Your task to perform on an android device: open wifi settings Image 0: 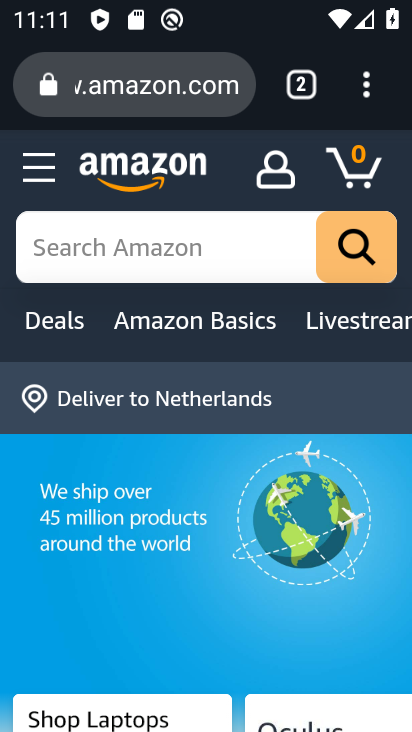
Step 0: press home button
Your task to perform on an android device: open wifi settings Image 1: 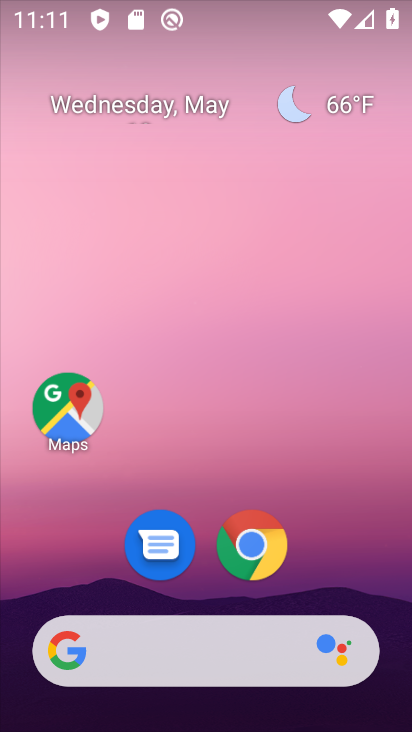
Step 1: drag from (133, 717) to (204, 260)
Your task to perform on an android device: open wifi settings Image 2: 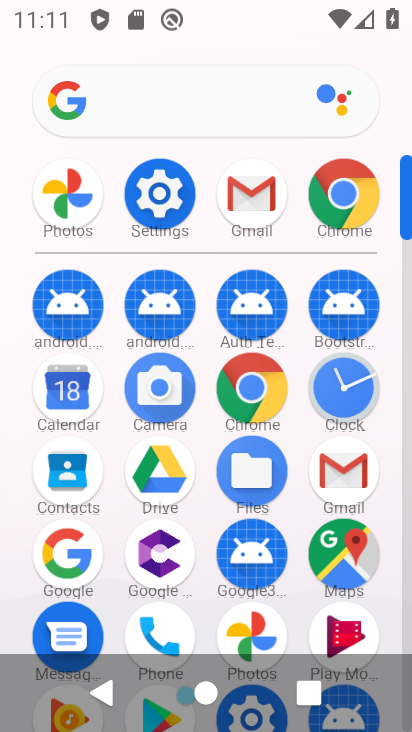
Step 2: click (155, 199)
Your task to perform on an android device: open wifi settings Image 3: 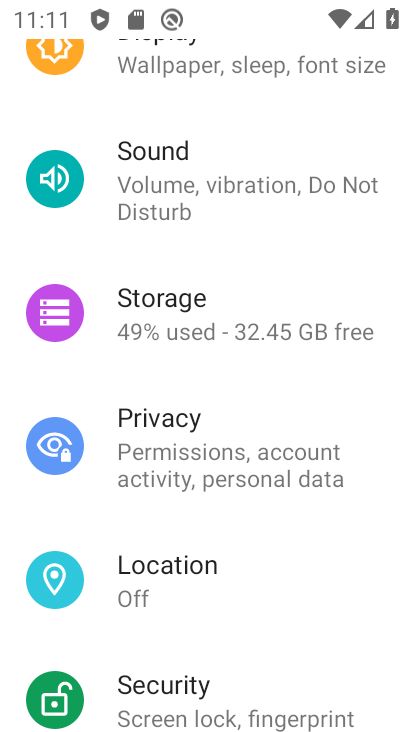
Step 3: drag from (190, 144) to (221, 683)
Your task to perform on an android device: open wifi settings Image 4: 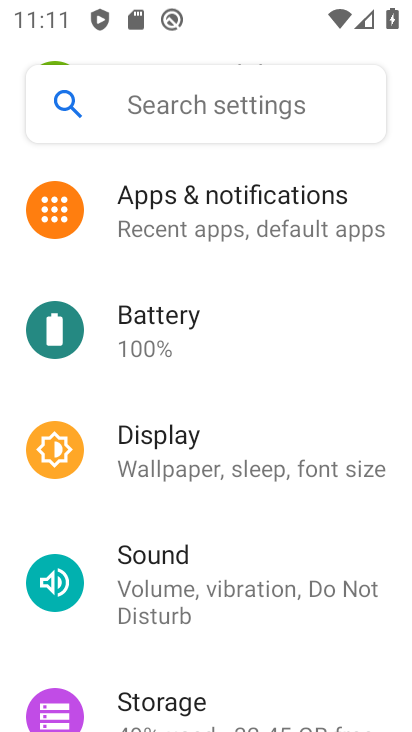
Step 4: drag from (205, 229) to (179, 564)
Your task to perform on an android device: open wifi settings Image 5: 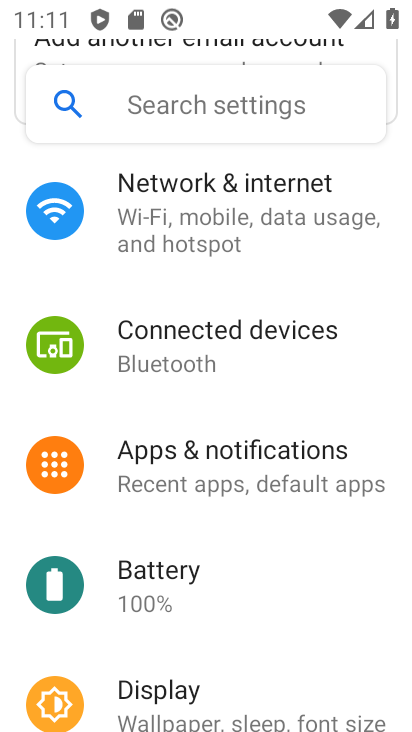
Step 5: click (179, 202)
Your task to perform on an android device: open wifi settings Image 6: 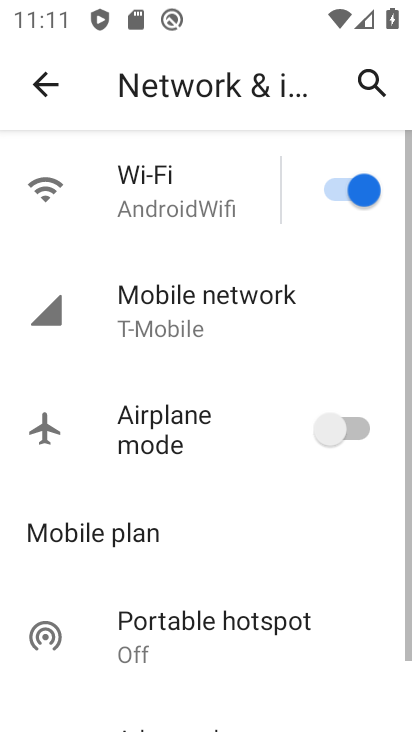
Step 6: click (155, 181)
Your task to perform on an android device: open wifi settings Image 7: 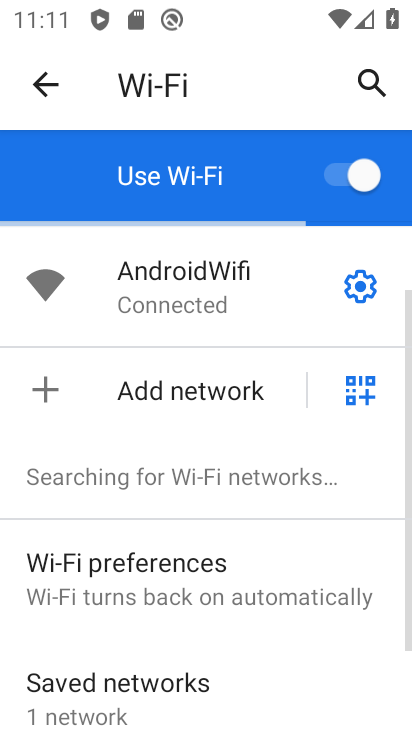
Step 7: click (368, 294)
Your task to perform on an android device: open wifi settings Image 8: 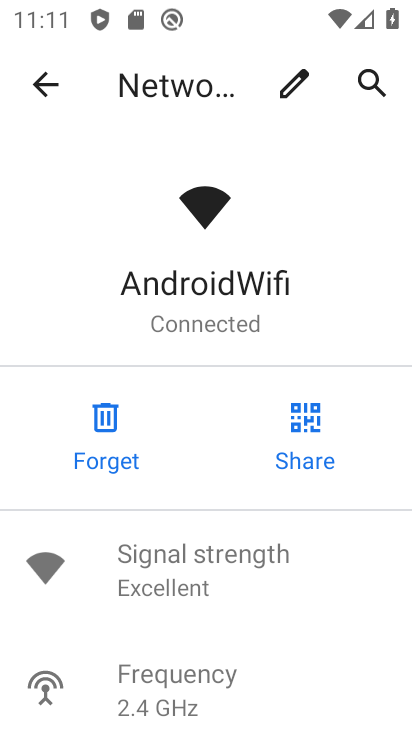
Step 8: task complete